Your task to perform on an android device: Go to location settings Image 0: 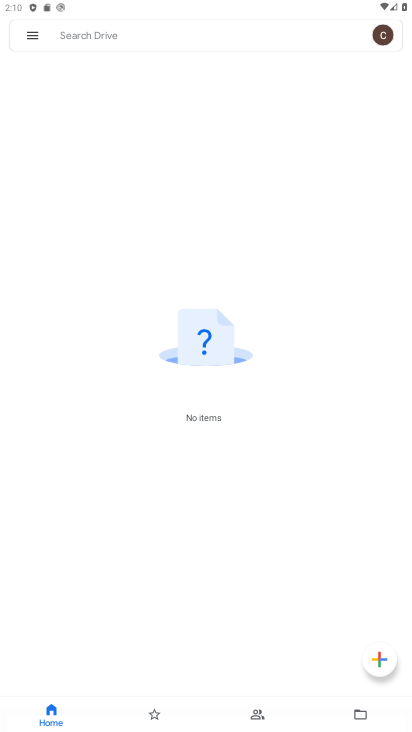
Step 0: press home button
Your task to perform on an android device: Go to location settings Image 1: 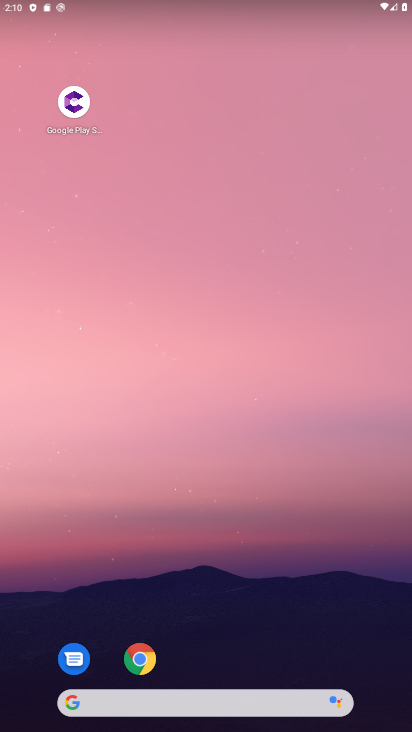
Step 1: drag from (188, 588) to (278, 107)
Your task to perform on an android device: Go to location settings Image 2: 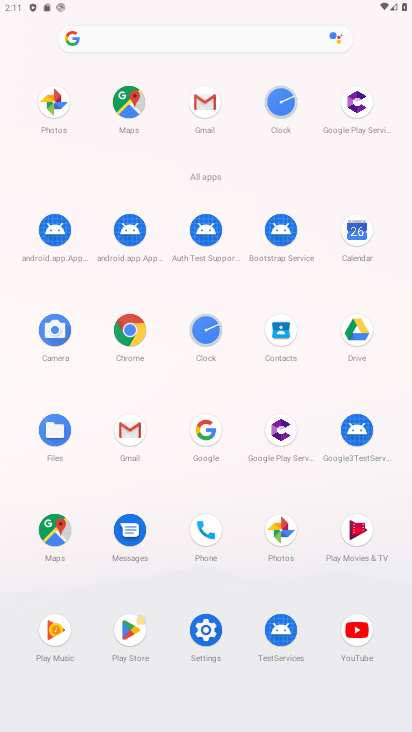
Step 2: click (203, 626)
Your task to perform on an android device: Go to location settings Image 3: 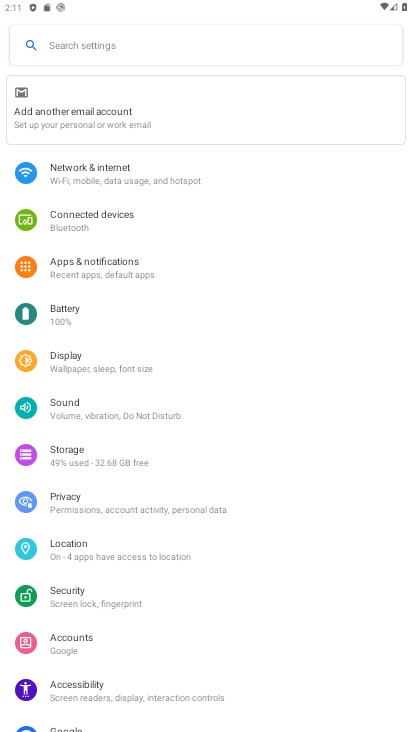
Step 3: click (78, 556)
Your task to perform on an android device: Go to location settings Image 4: 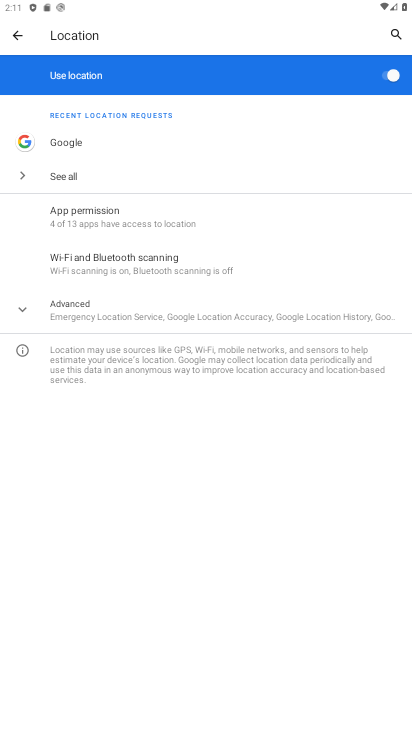
Step 4: task complete